Your task to perform on an android device: Go to Android settings Image 0: 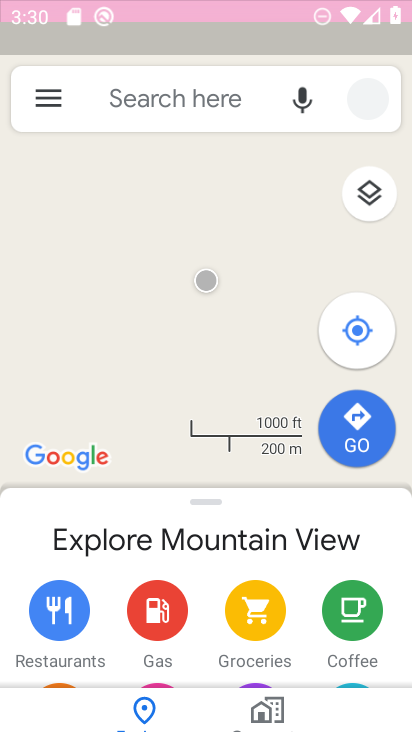
Step 0: click (268, 155)
Your task to perform on an android device: Go to Android settings Image 1: 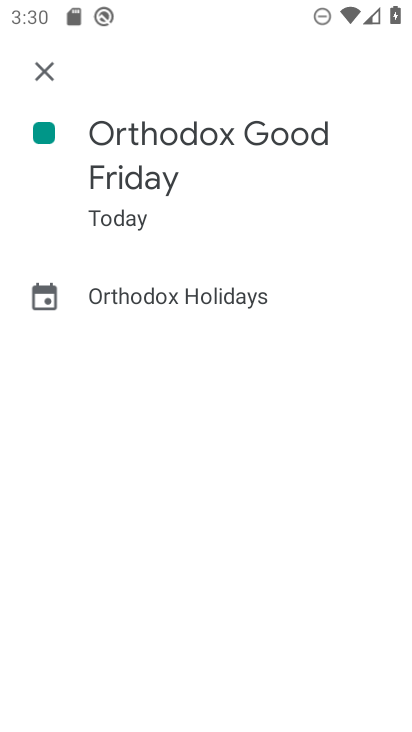
Step 1: press home button
Your task to perform on an android device: Go to Android settings Image 2: 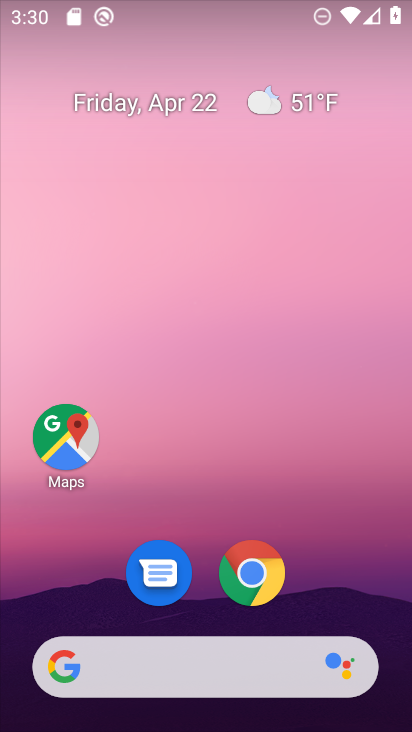
Step 2: drag from (334, 584) to (305, 108)
Your task to perform on an android device: Go to Android settings Image 3: 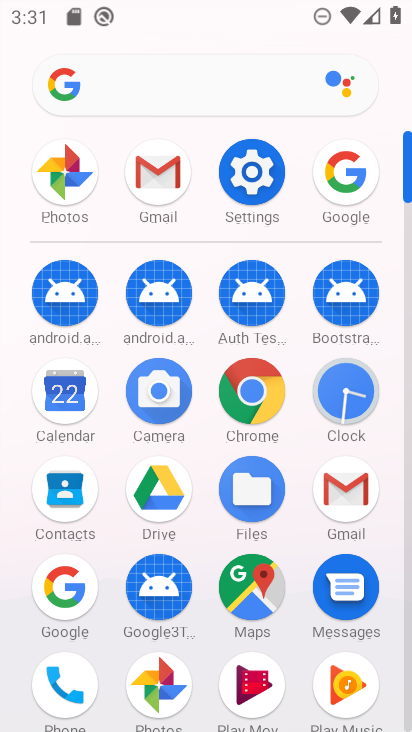
Step 3: click (266, 195)
Your task to perform on an android device: Go to Android settings Image 4: 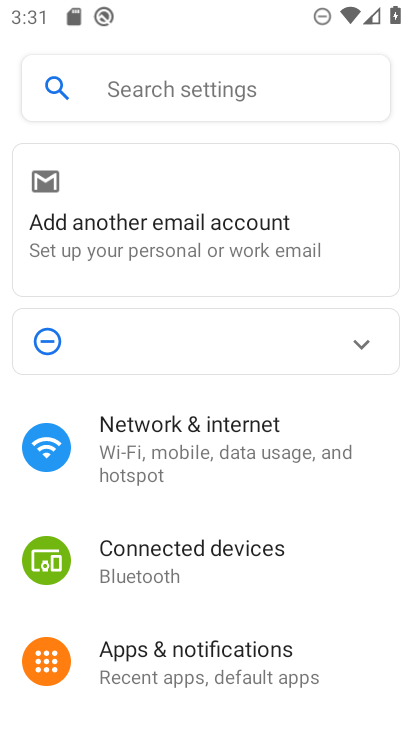
Step 4: task complete